Your task to perform on an android device: change alarm snooze length Image 0: 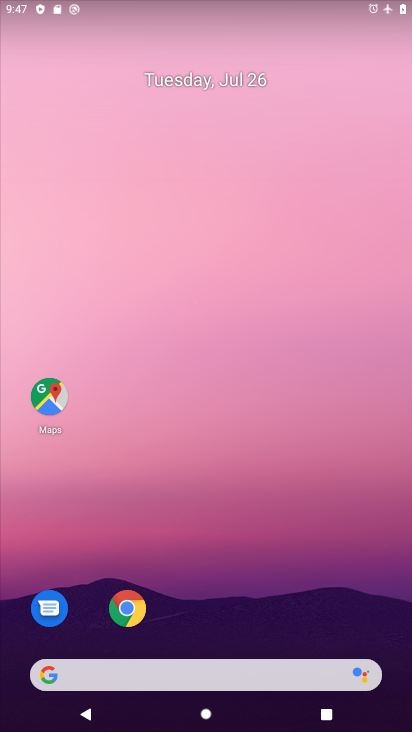
Step 0: drag from (219, 725) to (221, 150)
Your task to perform on an android device: change alarm snooze length Image 1: 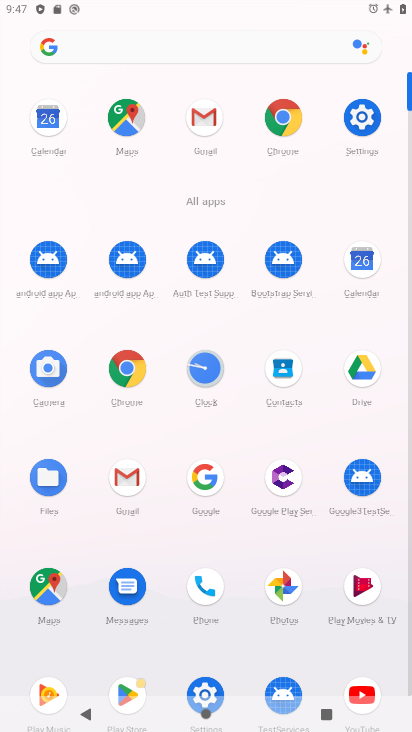
Step 1: click (208, 373)
Your task to perform on an android device: change alarm snooze length Image 2: 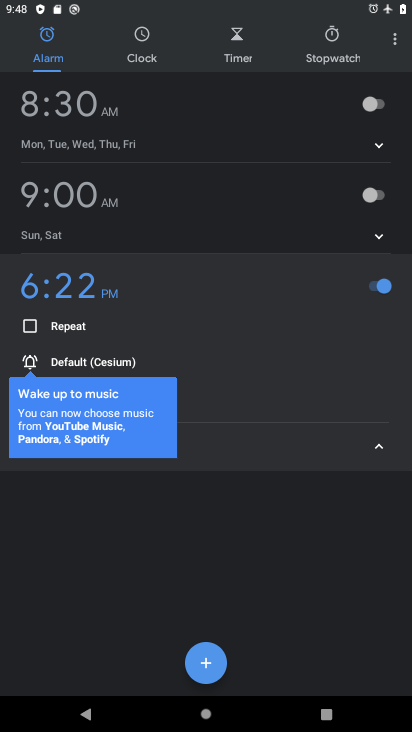
Step 2: click (397, 45)
Your task to perform on an android device: change alarm snooze length Image 3: 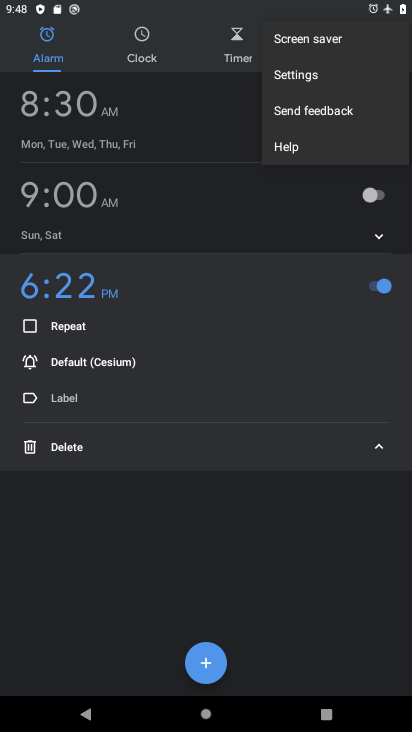
Step 3: click (300, 72)
Your task to perform on an android device: change alarm snooze length Image 4: 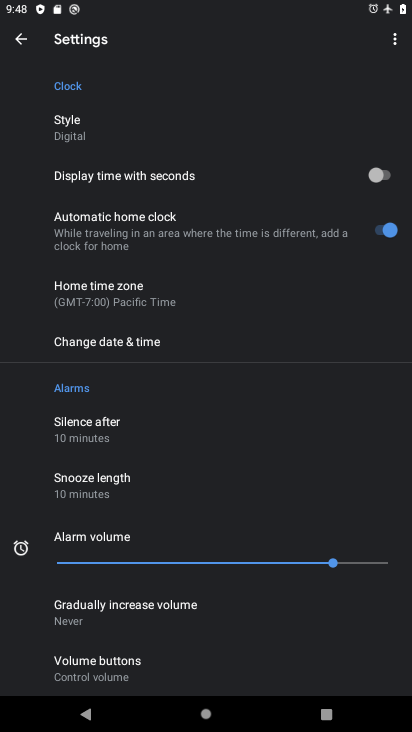
Step 4: click (92, 484)
Your task to perform on an android device: change alarm snooze length Image 5: 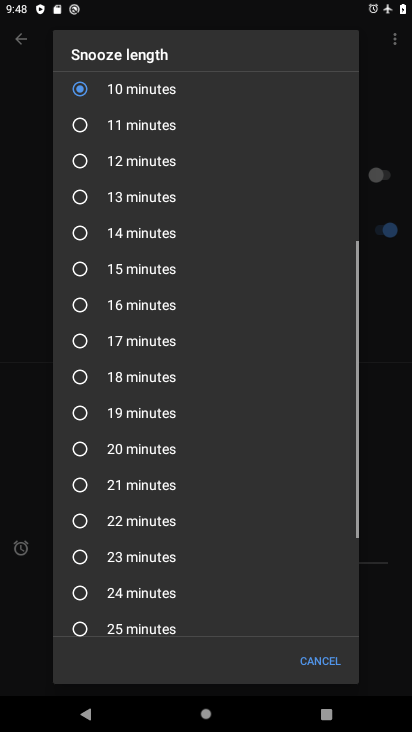
Step 5: click (82, 590)
Your task to perform on an android device: change alarm snooze length Image 6: 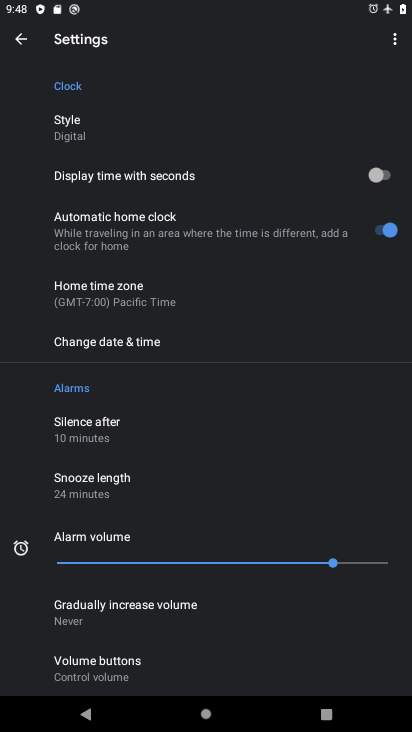
Step 6: task complete